Your task to perform on an android device: turn on notifications settings in the gmail app Image 0: 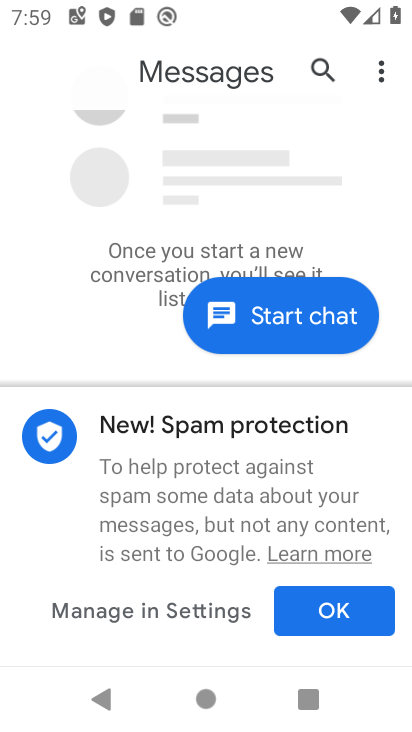
Step 0: press home button
Your task to perform on an android device: turn on notifications settings in the gmail app Image 1: 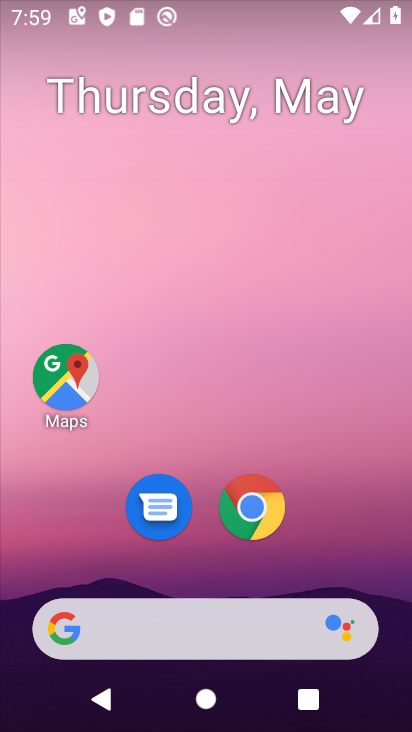
Step 1: drag from (298, 657) to (125, 120)
Your task to perform on an android device: turn on notifications settings in the gmail app Image 2: 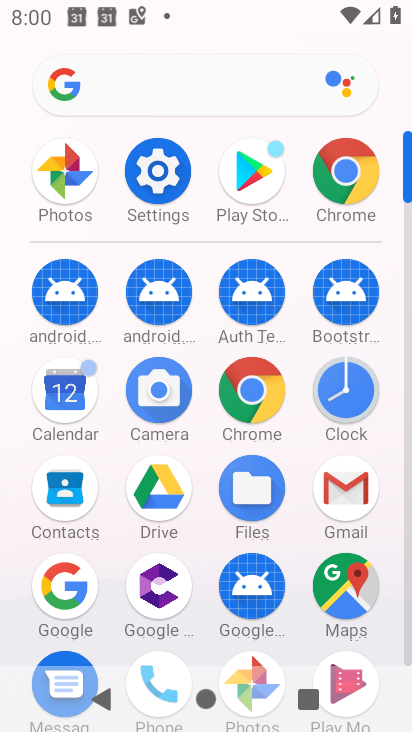
Step 2: click (351, 501)
Your task to perform on an android device: turn on notifications settings in the gmail app Image 3: 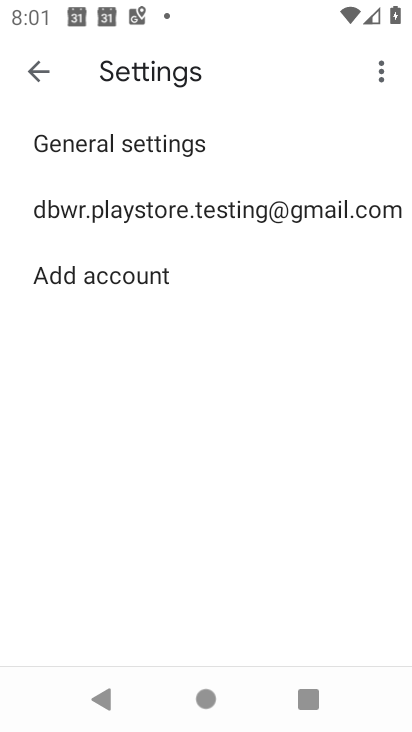
Step 3: click (173, 232)
Your task to perform on an android device: turn on notifications settings in the gmail app Image 4: 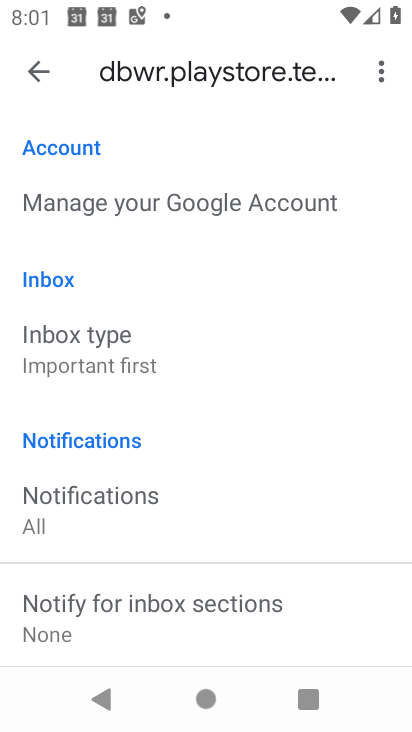
Step 4: click (114, 505)
Your task to perform on an android device: turn on notifications settings in the gmail app Image 5: 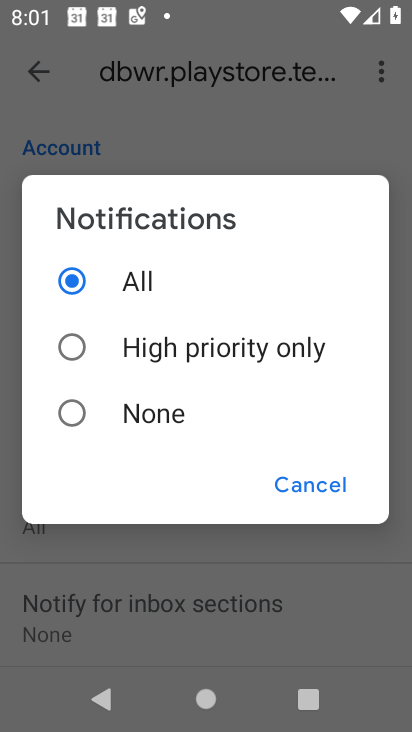
Step 5: task complete